Your task to perform on an android device: Open Wikipedia Image 0: 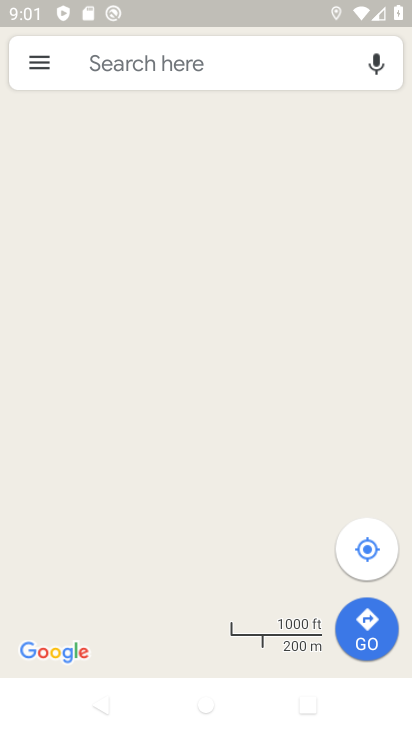
Step 0: press back button
Your task to perform on an android device: Open Wikipedia Image 1: 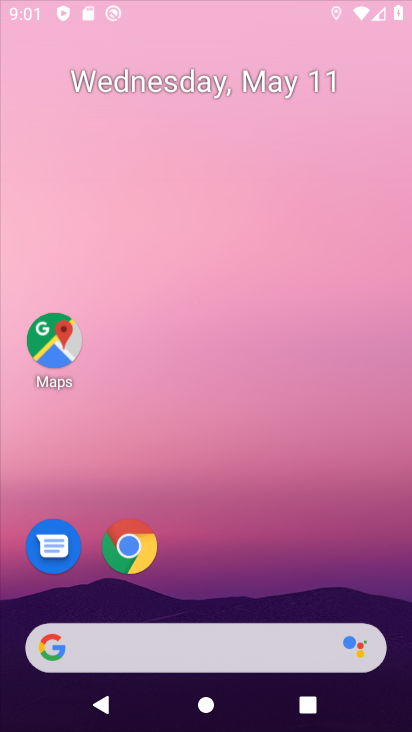
Step 1: press home button
Your task to perform on an android device: Open Wikipedia Image 2: 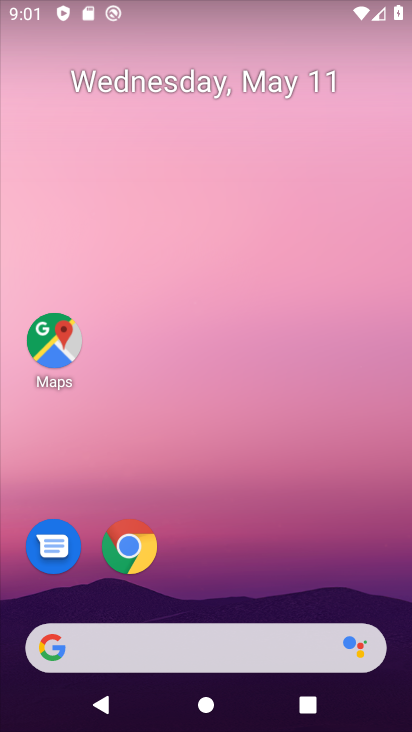
Step 2: click (139, 550)
Your task to perform on an android device: Open Wikipedia Image 3: 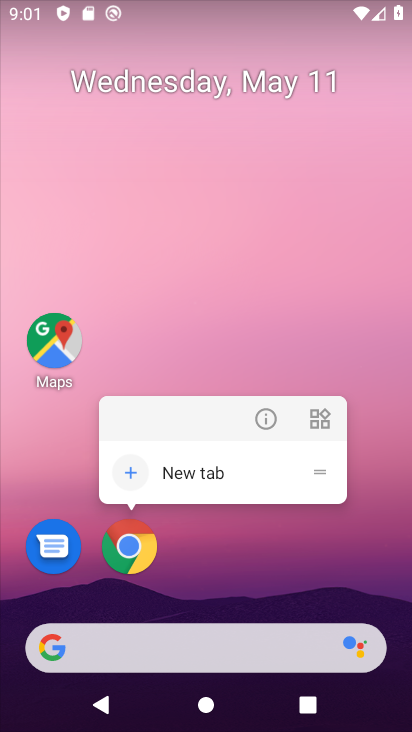
Step 3: click (133, 550)
Your task to perform on an android device: Open Wikipedia Image 4: 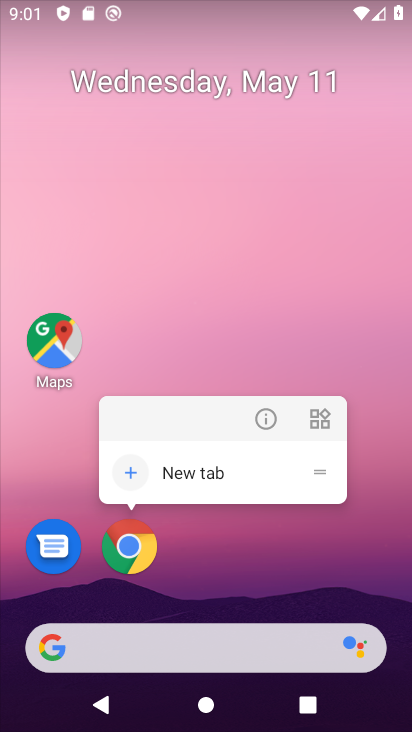
Step 4: click (128, 571)
Your task to perform on an android device: Open Wikipedia Image 5: 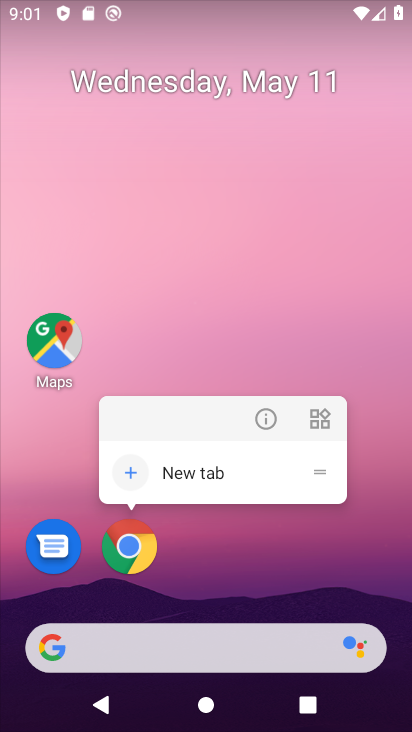
Step 5: click (128, 546)
Your task to perform on an android device: Open Wikipedia Image 6: 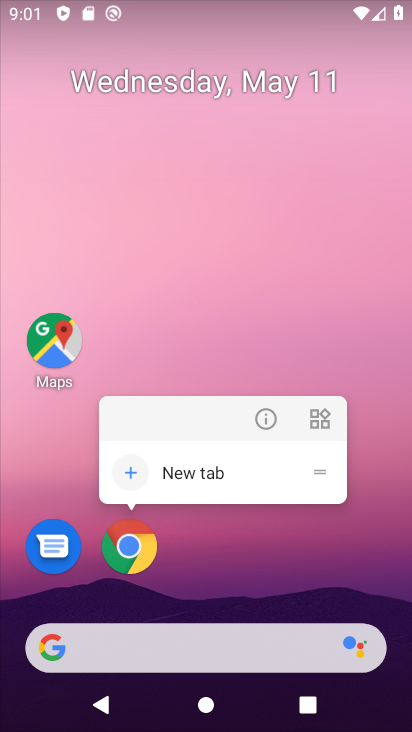
Step 6: click (128, 546)
Your task to perform on an android device: Open Wikipedia Image 7: 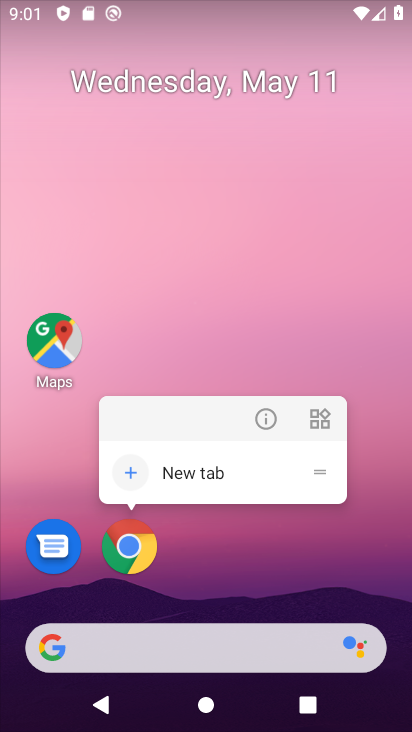
Step 7: click (148, 554)
Your task to perform on an android device: Open Wikipedia Image 8: 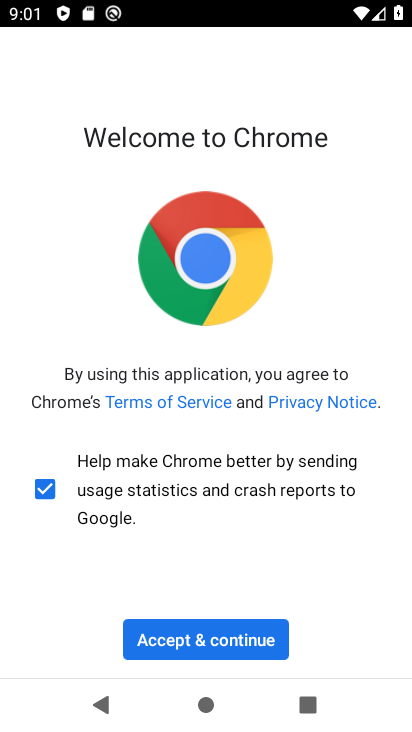
Step 8: click (261, 633)
Your task to perform on an android device: Open Wikipedia Image 9: 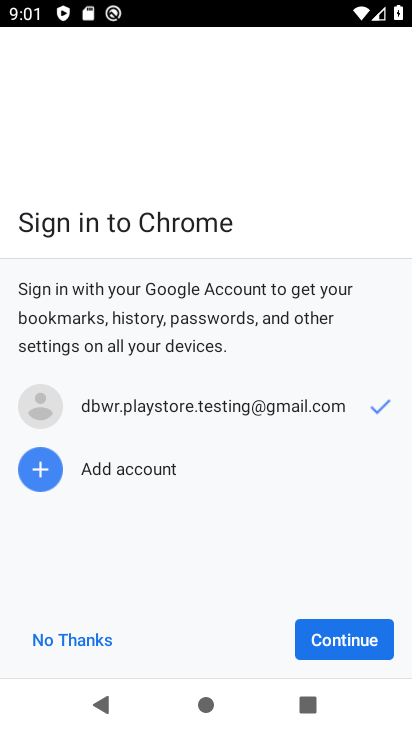
Step 9: click (367, 643)
Your task to perform on an android device: Open Wikipedia Image 10: 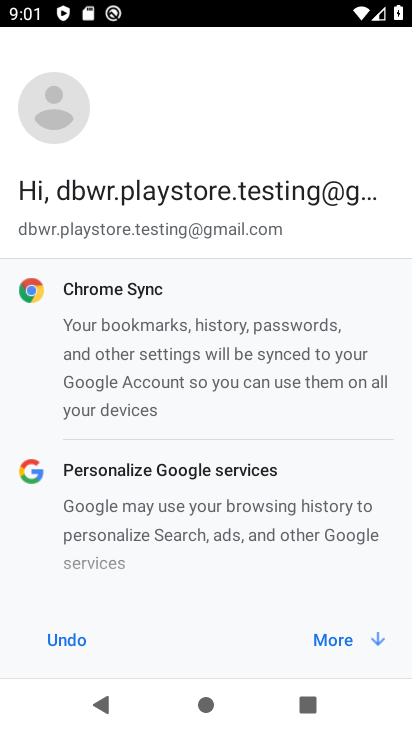
Step 10: click (368, 642)
Your task to perform on an android device: Open Wikipedia Image 11: 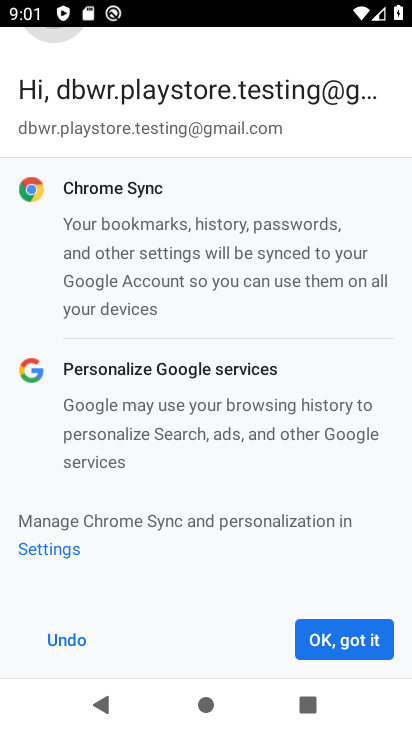
Step 11: click (368, 642)
Your task to perform on an android device: Open Wikipedia Image 12: 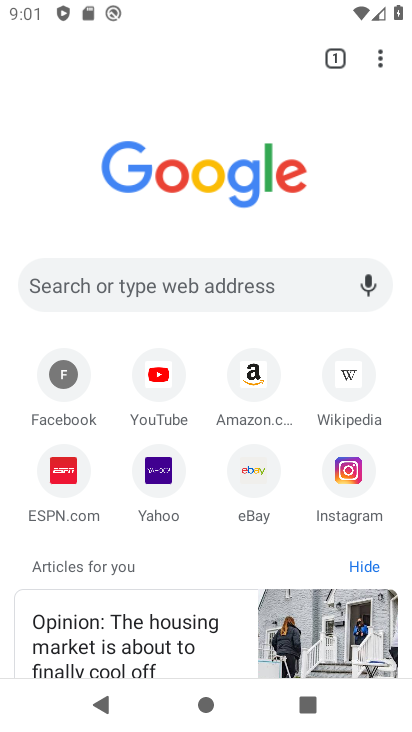
Step 12: click (343, 382)
Your task to perform on an android device: Open Wikipedia Image 13: 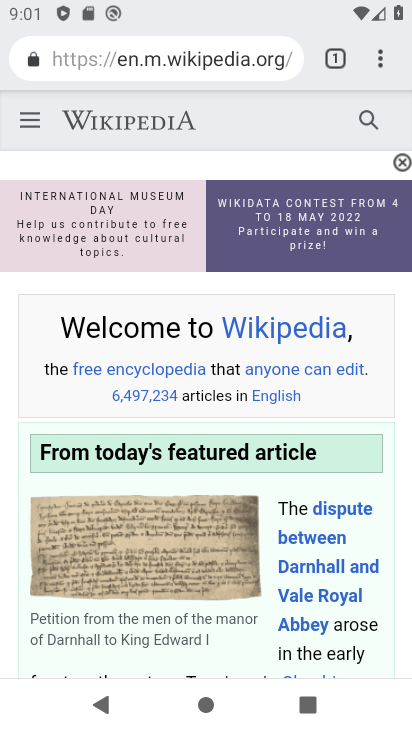
Step 13: task complete